Your task to perform on an android device: Search for Italian restaurants on Maps Image 0: 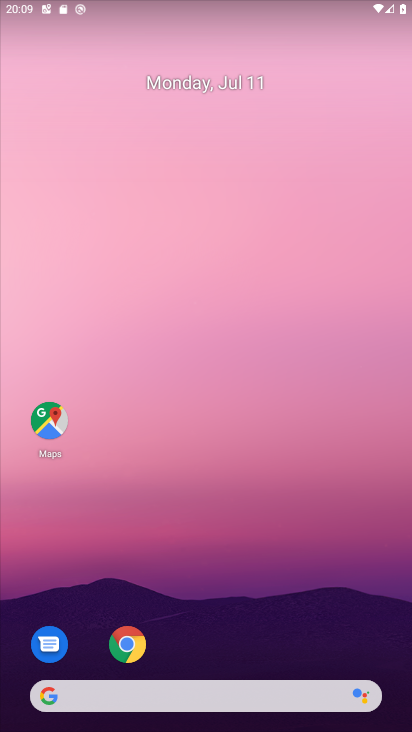
Step 0: drag from (221, 659) to (219, 156)
Your task to perform on an android device: Search for Italian restaurants on Maps Image 1: 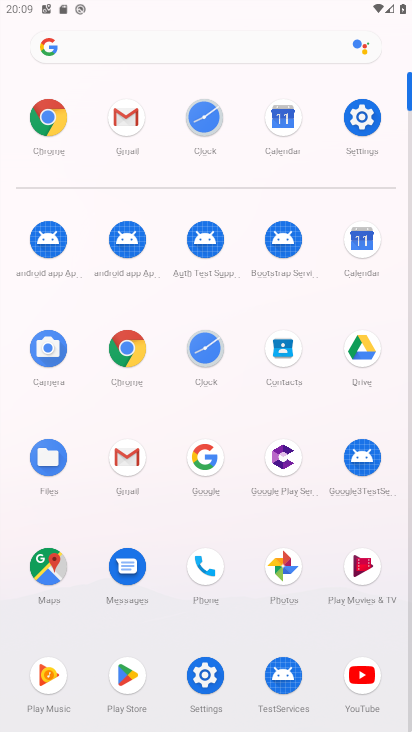
Step 1: click (41, 582)
Your task to perform on an android device: Search for Italian restaurants on Maps Image 2: 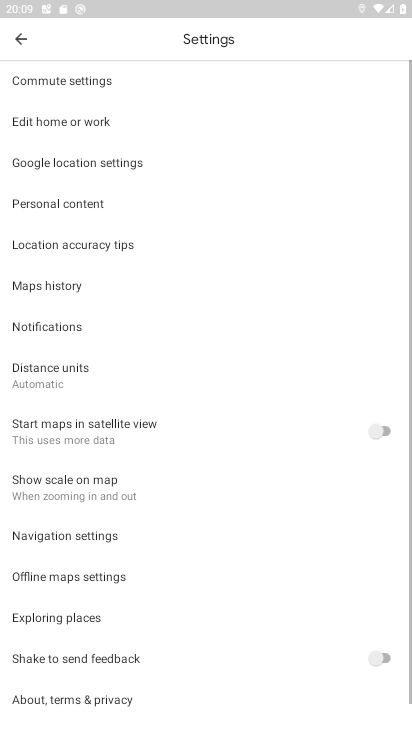
Step 2: click (34, 45)
Your task to perform on an android device: Search for Italian restaurants on Maps Image 3: 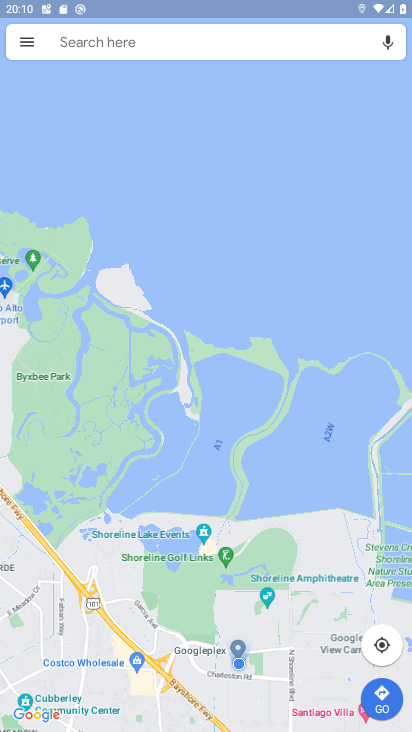
Step 3: click (140, 41)
Your task to perform on an android device: Search for Italian restaurants on Maps Image 4: 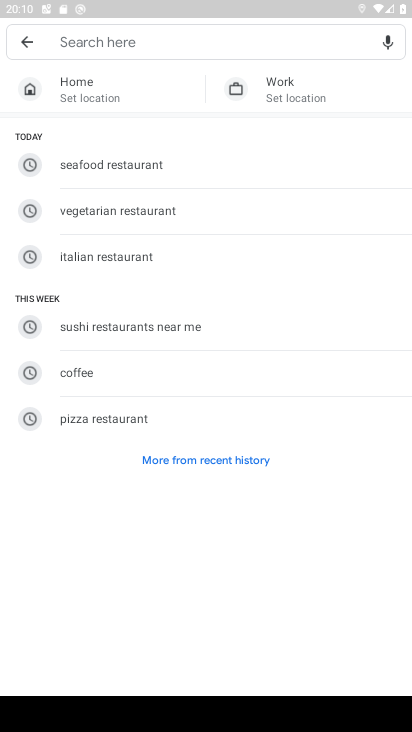
Step 4: type "Italian restaurants  "
Your task to perform on an android device: Search for Italian restaurants on Maps Image 5: 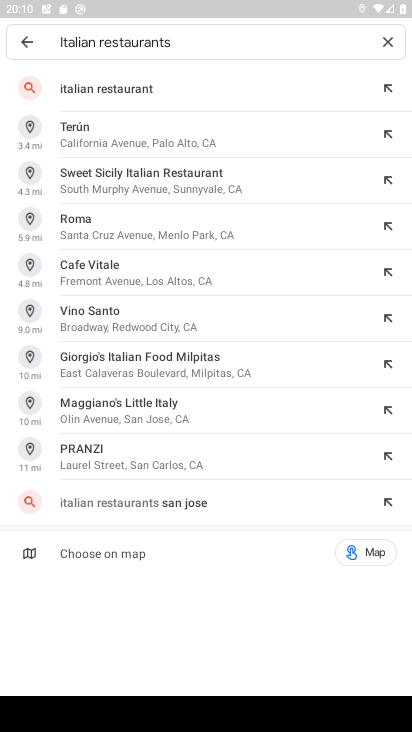
Step 5: click (131, 96)
Your task to perform on an android device: Search for Italian restaurants on Maps Image 6: 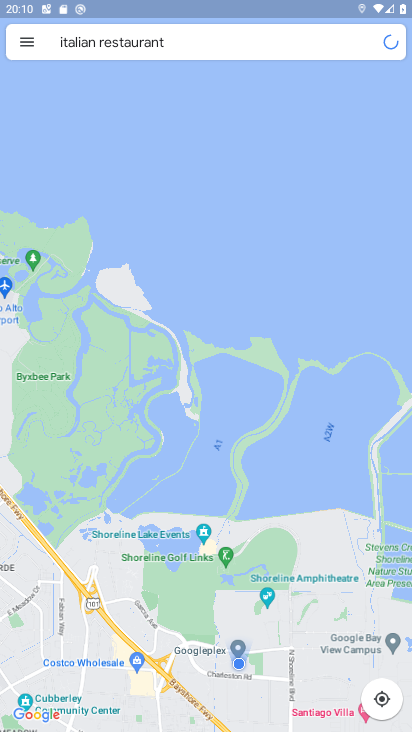
Step 6: task complete